Your task to perform on an android device: open app "Nova Launcher" (install if not already installed) Image 0: 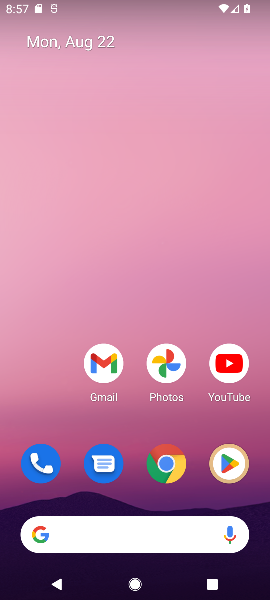
Step 0: click (226, 465)
Your task to perform on an android device: open app "Nova Launcher" (install if not already installed) Image 1: 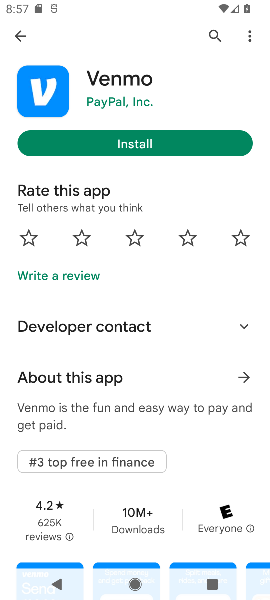
Step 1: click (22, 40)
Your task to perform on an android device: open app "Nova Launcher" (install if not already installed) Image 2: 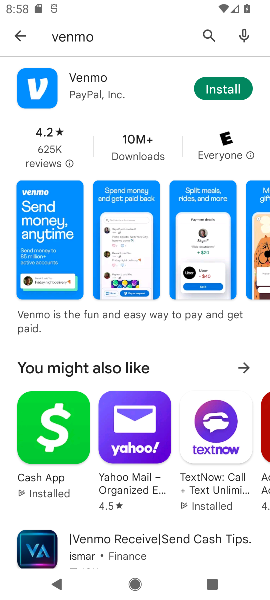
Step 2: click (23, 33)
Your task to perform on an android device: open app "Nova Launcher" (install if not already installed) Image 3: 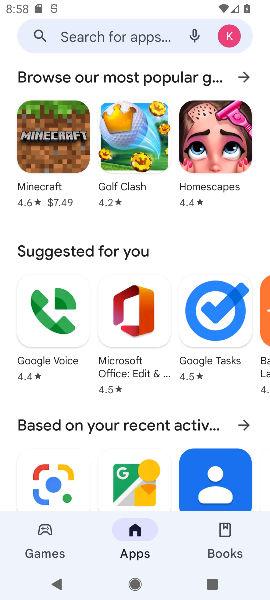
Step 3: click (76, 30)
Your task to perform on an android device: open app "Nova Launcher" (install if not already installed) Image 4: 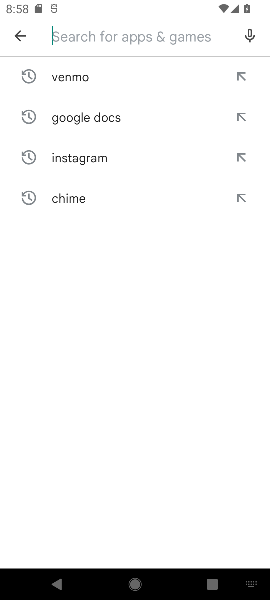
Step 4: type "Nova Launcher"
Your task to perform on an android device: open app "Nova Launcher" (install if not already installed) Image 5: 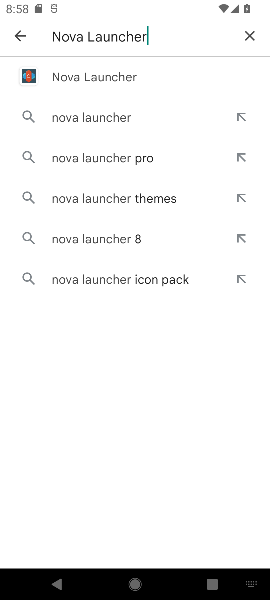
Step 5: click (101, 76)
Your task to perform on an android device: open app "Nova Launcher" (install if not already installed) Image 6: 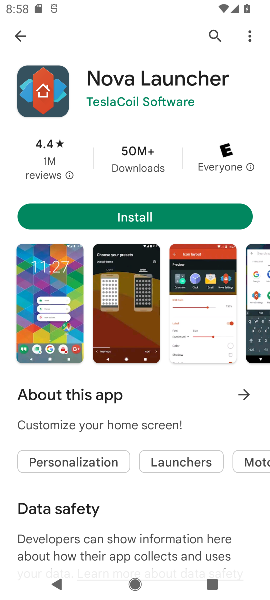
Step 6: click (133, 219)
Your task to perform on an android device: open app "Nova Launcher" (install if not already installed) Image 7: 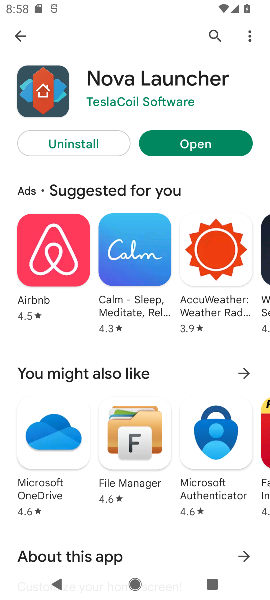
Step 7: click (186, 146)
Your task to perform on an android device: open app "Nova Launcher" (install if not already installed) Image 8: 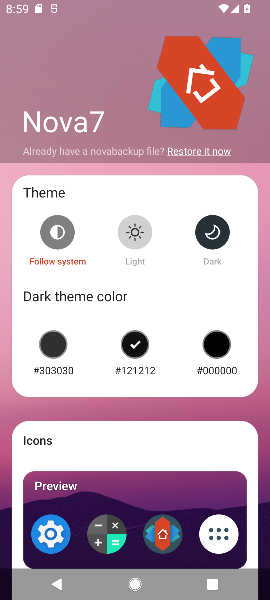
Step 8: task complete